Your task to perform on an android device: check google app version Image 0: 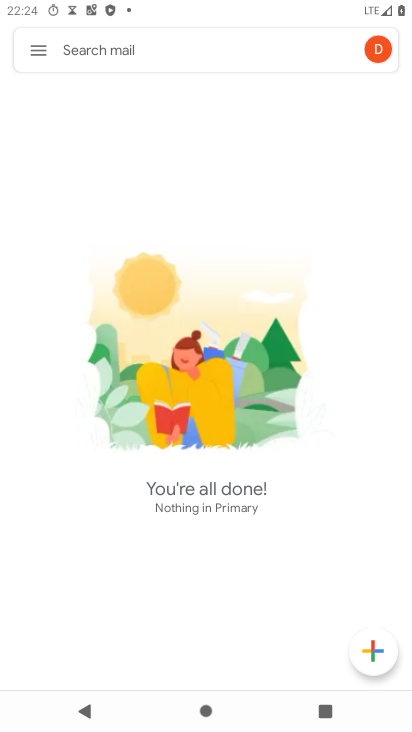
Step 0: press back button
Your task to perform on an android device: check google app version Image 1: 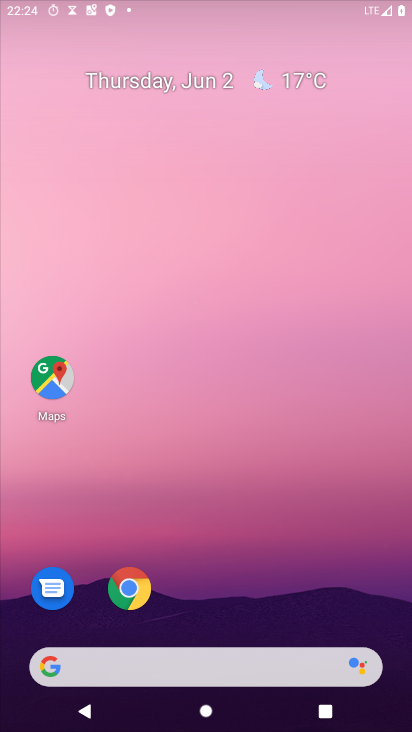
Step 1: drag from (257, 588) to (275, 32)
Your task to perform on an android device: check google app version Image 2: 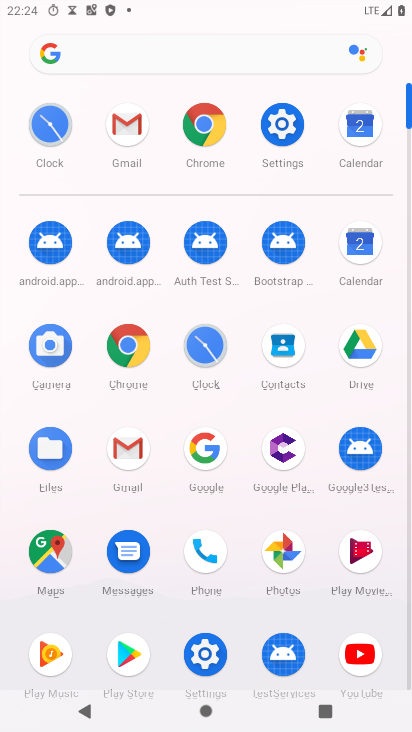
Step 2: click (202, 452)
Your task to perform on an android device: check google app version Image 3: 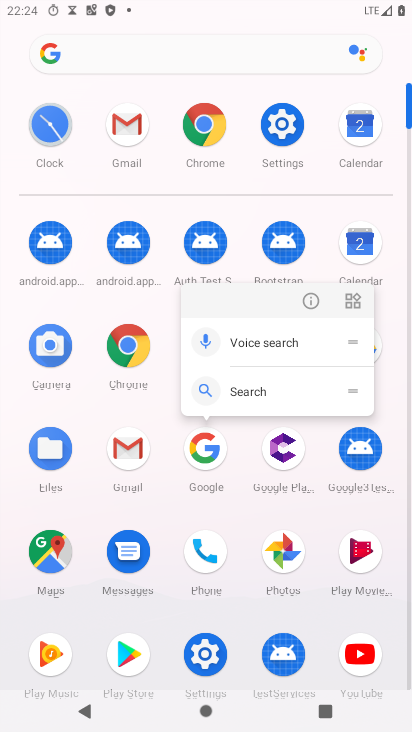
Step 3: click (309, 303)
Your task to perform on an android device: check google app version Image 4: 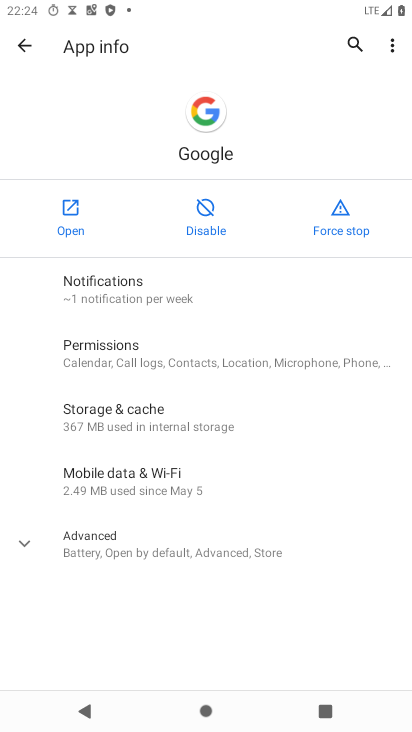
Step 4: click (156, 564)
Your task to perform on an android device: check google app version Image 5: 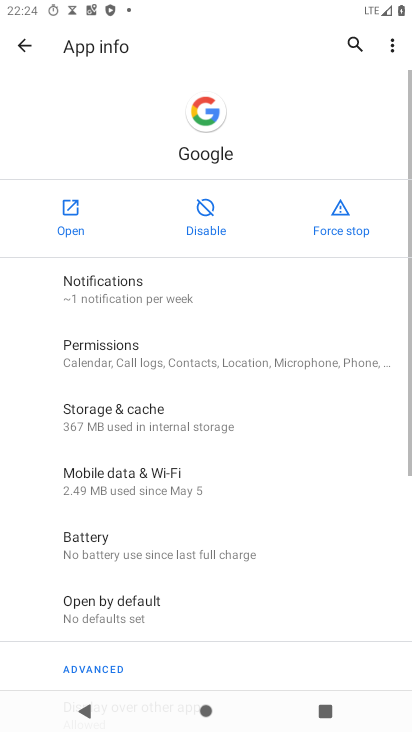
Step 5: task complete